Your task to perform on an android device: install app "Indeed Job Search" Image 0: 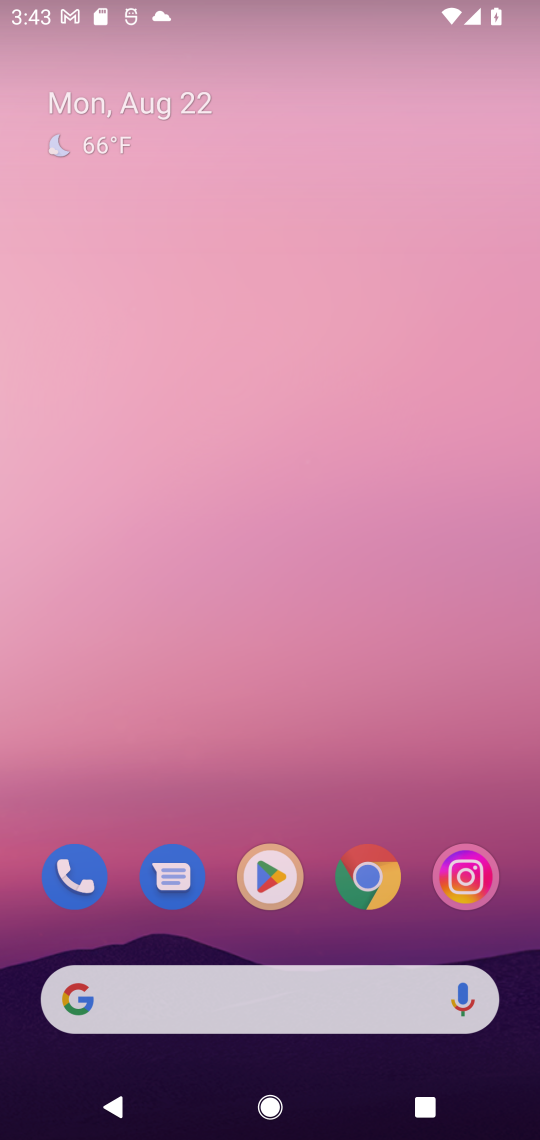
Step 0: press home button
Your task to perform on an android device: install app "Indeed Job Search" Image 1: 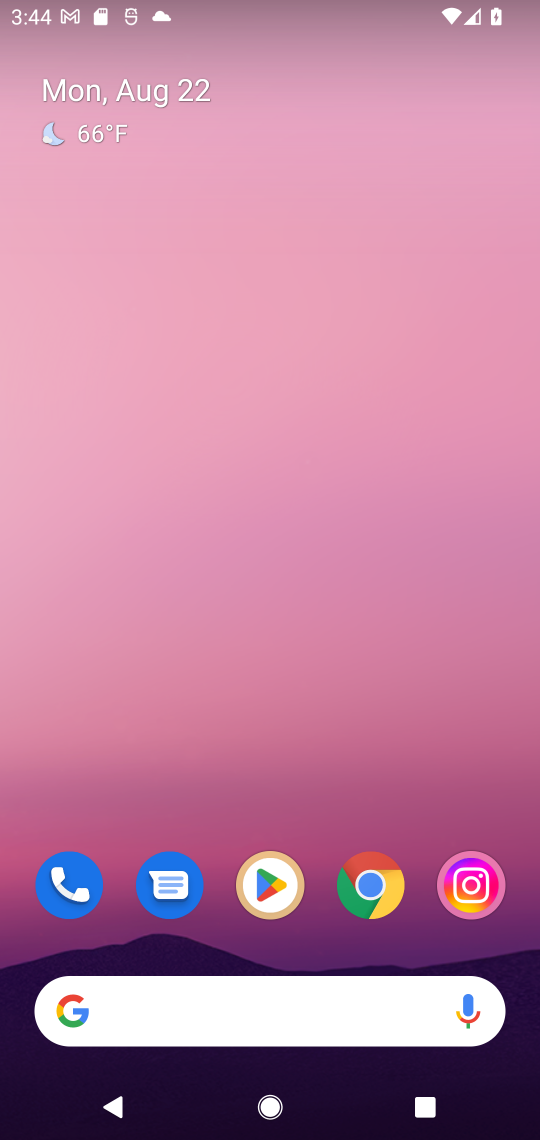
Step 1: click (270, 885)
Your task to perform on an android device: install app "Indeed Job Search" Image 2: 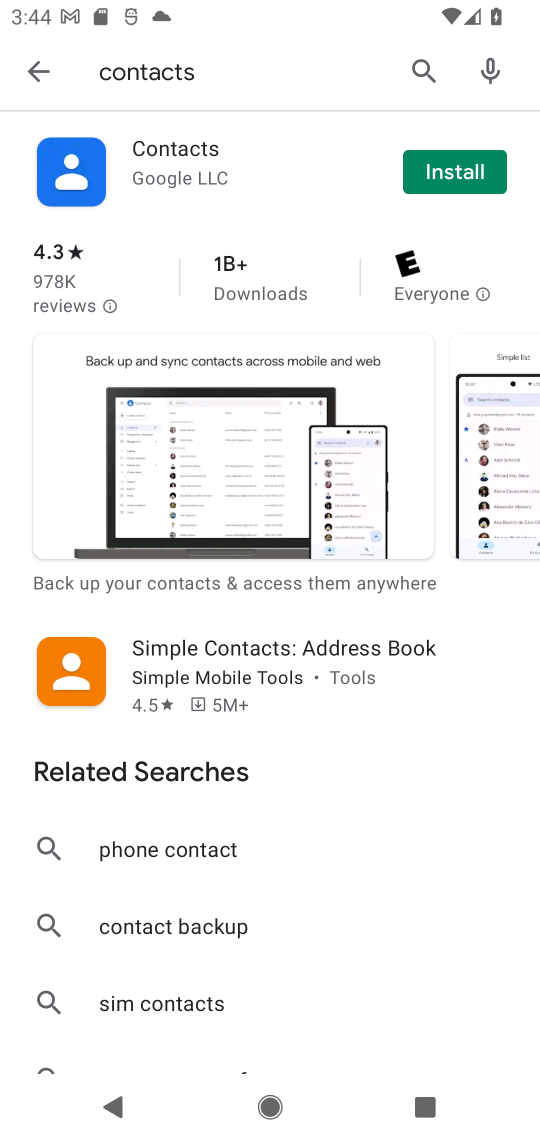
Step 2: click (431, 74)
Your task to perform on an android device: install app "Indeed Job Search" Image 3: 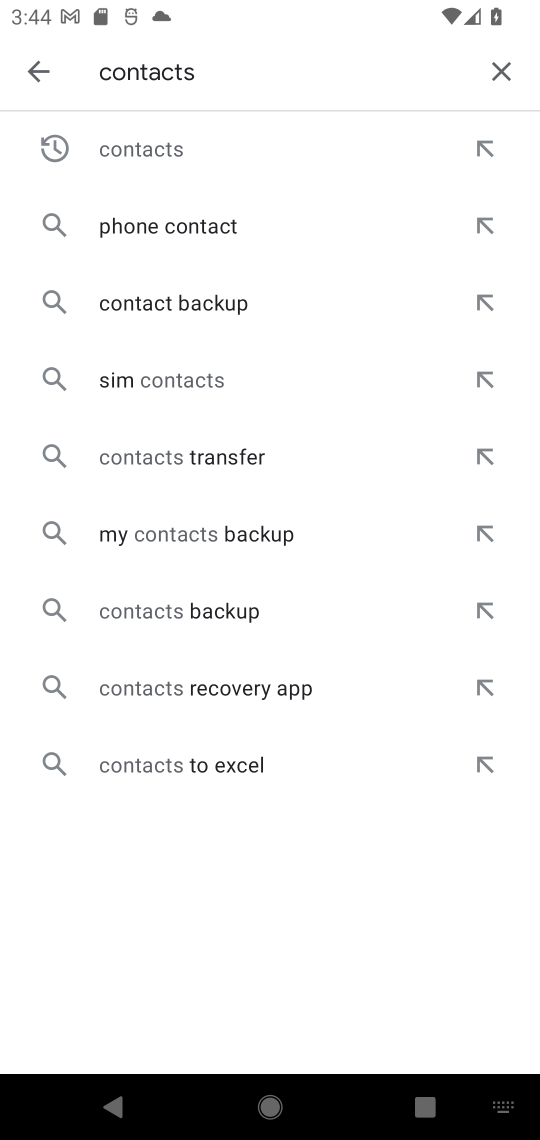
Step 3: click (495, 72)
Your task to perform on an android device: install app "Indeed Job Search" Image 4: 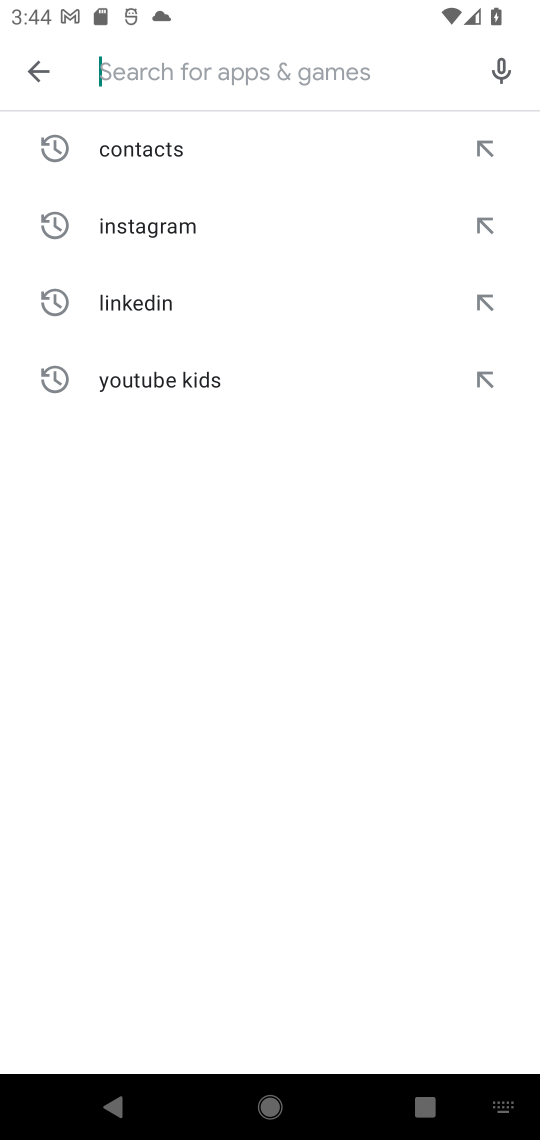
Step 4: type "Indeed Job Search"
Your task to perform on an android device: install app "Indeed Job Search" Image 5: 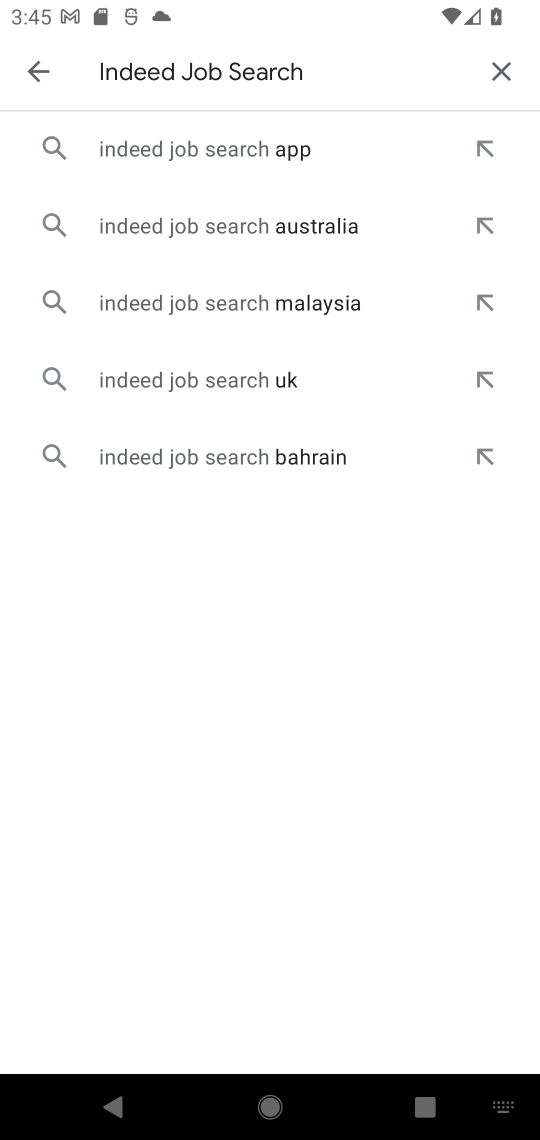
Step 5: click (215, 140)
Your task to perform on an android device: install app "Indeed Job Search" Image 6: 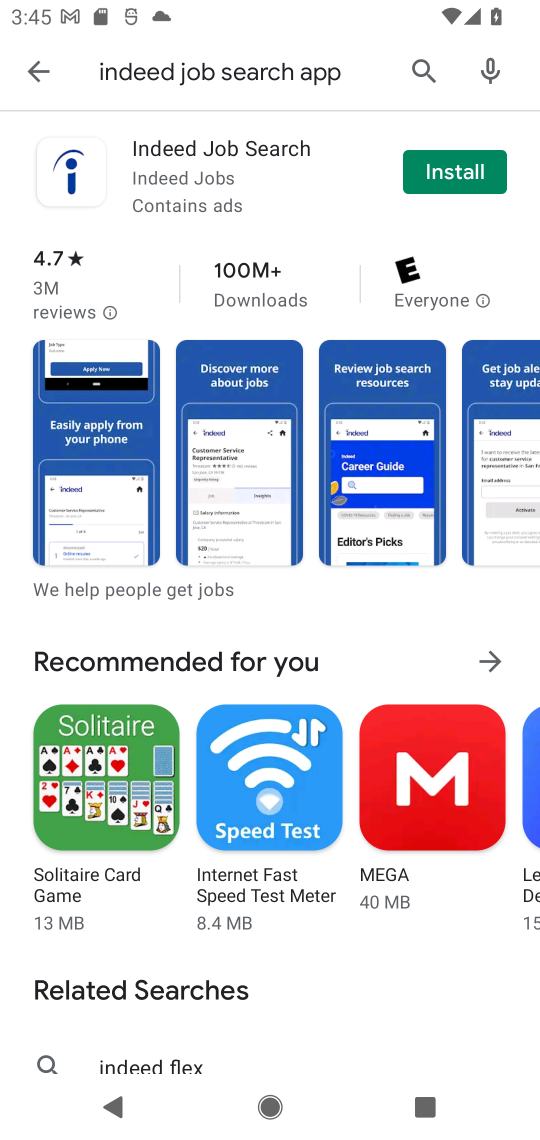
Step 6: click (472, 181)
Your task to perform on an android device: install app "Indeed Job Search" Image 7: 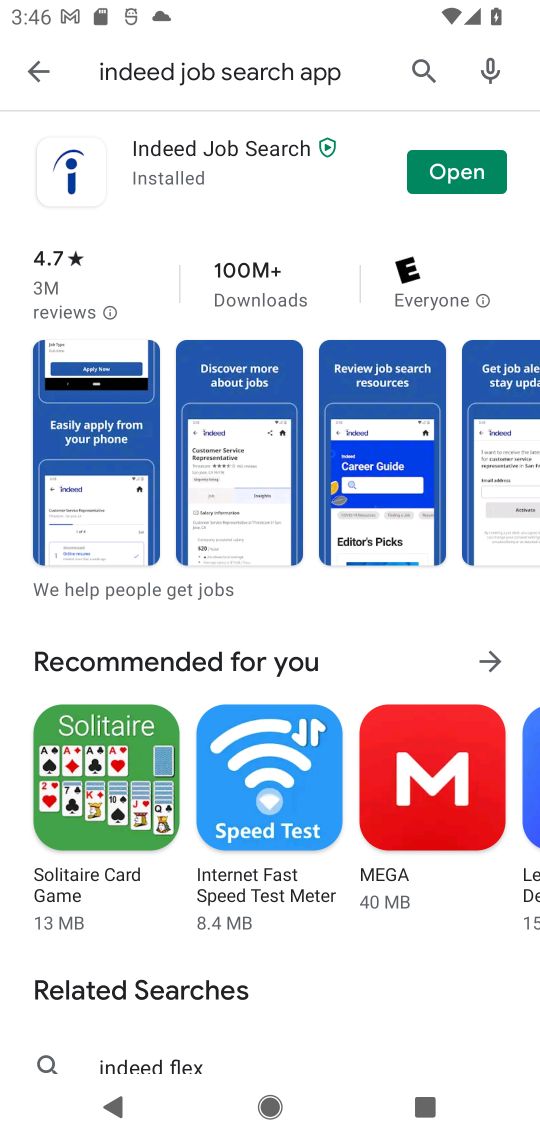
Step 7: click (466, 173)
Your task to perform on an android device: install app "Indeed Job Search" Image 8: 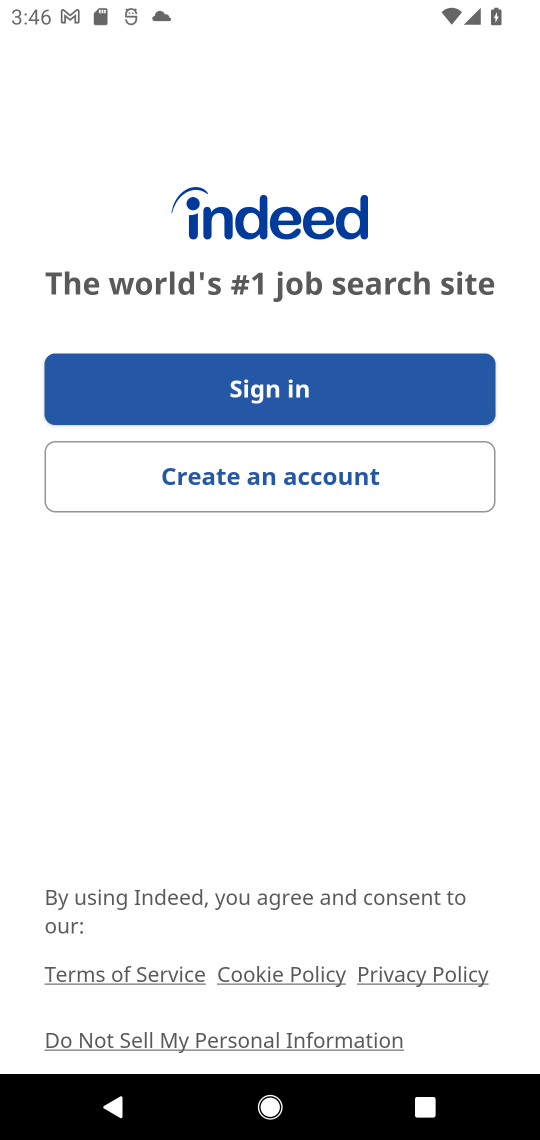
Step 8: task complete